Your task to perform on an android device: open a bookmark in the chrome app Image 0: 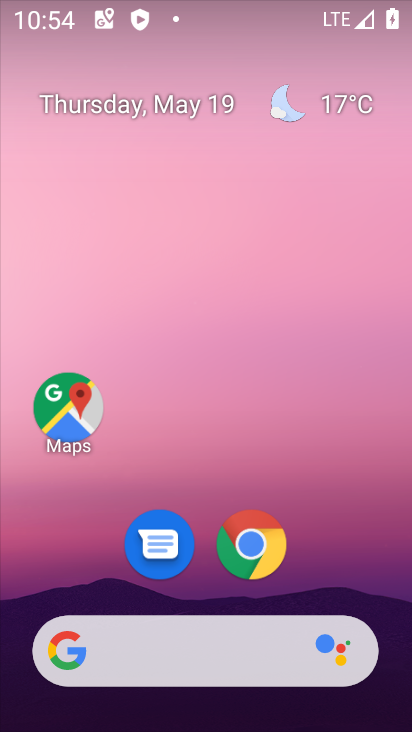
Step 0: click (262, 557)
Your task to perform on an android device: open a bookmark in the chrome app Image 1: 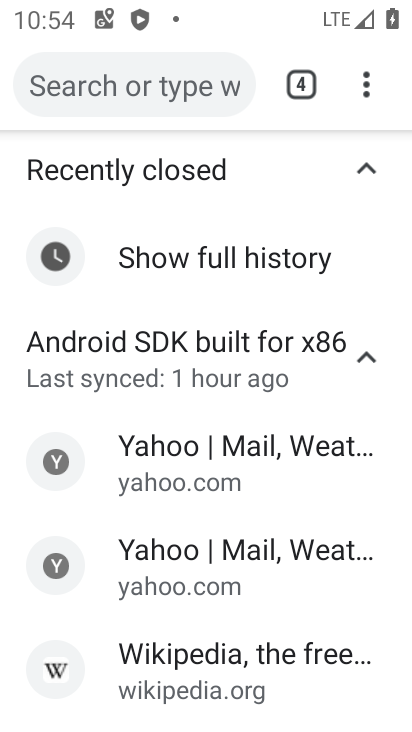
Step 1: click (366, 82)
Your task to perform on an android device: open a bookmark in the chrome app Image 2: 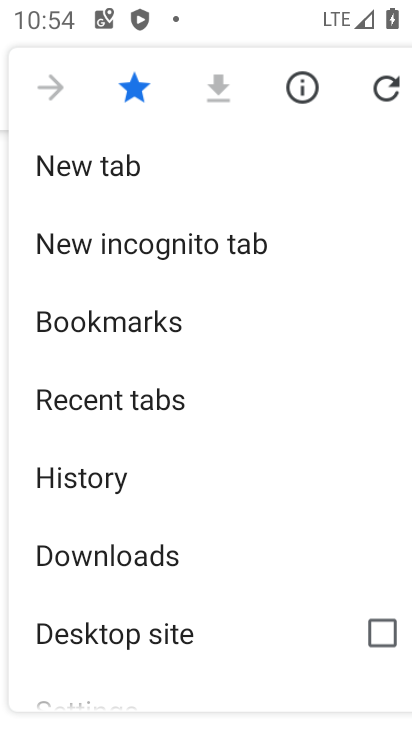
Step 2: click (163, 342)
Your task to perform on an android device: open a bookmark in the chrome app Image 3: 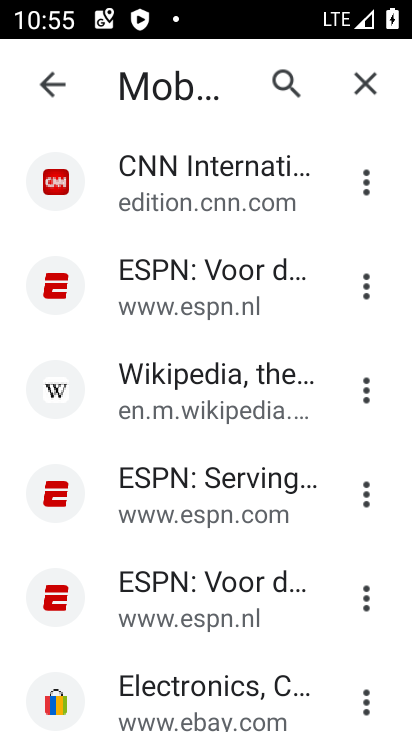
Step 3: click (275, 414)
Your task to perform on an android device: open a bookmark in the chrome app Image 4: 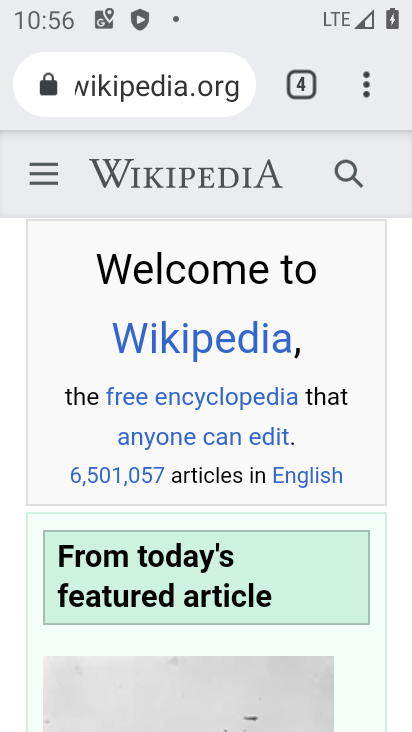
Step 4: task complete